Your task to perform on an android device: What's on my calendar today? Image 0: 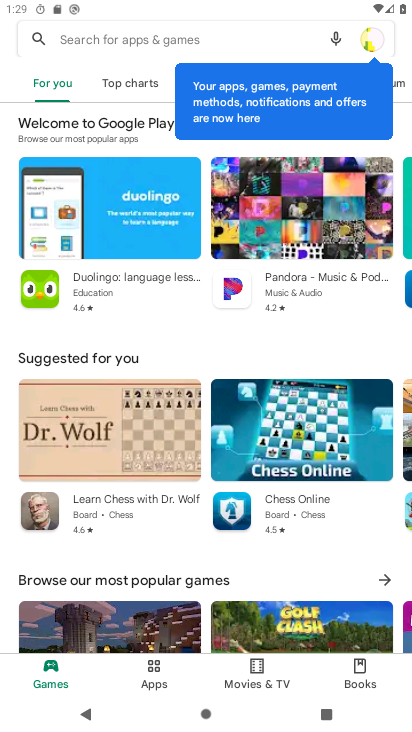
Step 0: press home button
Your task to perform on an android device: What's on my calendar today? Image 1: 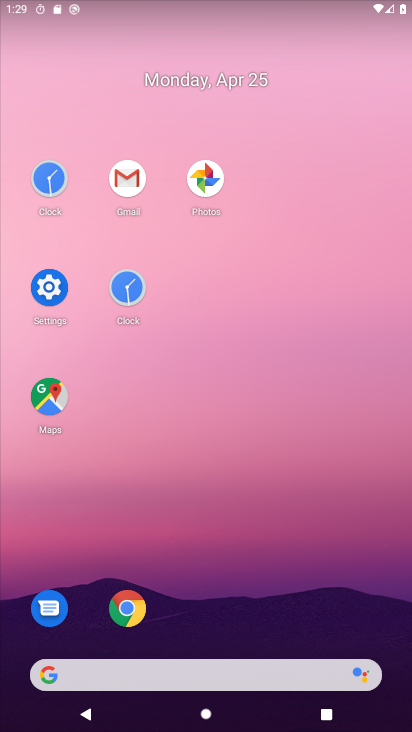
Step 1: drag from (193, 633) to (233, 181)
Your task to perform on an android device: What's on my calendar today? Image 2: 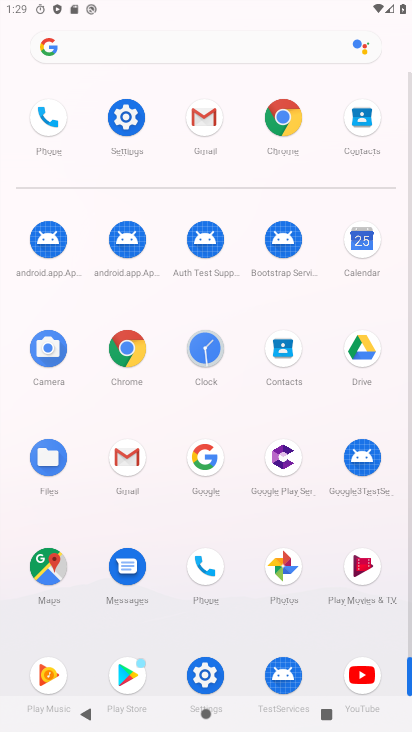
Step 2: drag from (361, 237) to (243, 244)
Your task to perform on an android device: What's on my calendar today? Image 3: 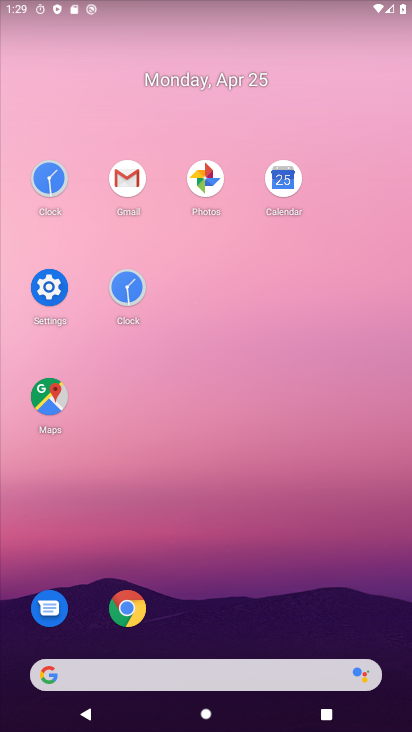
Step 3: click (283, 189)
Your task to perform on an android device: What's on my calendar today? Image 4: 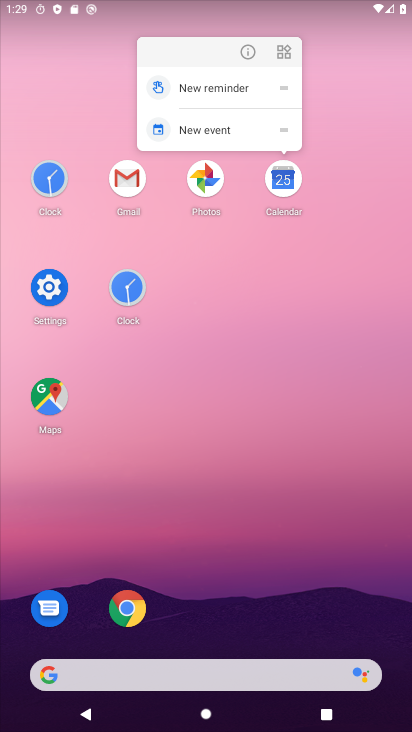
Step 4: click (283, 189)
Your task to perform on an android device: What's on my calendar today? Image 5: 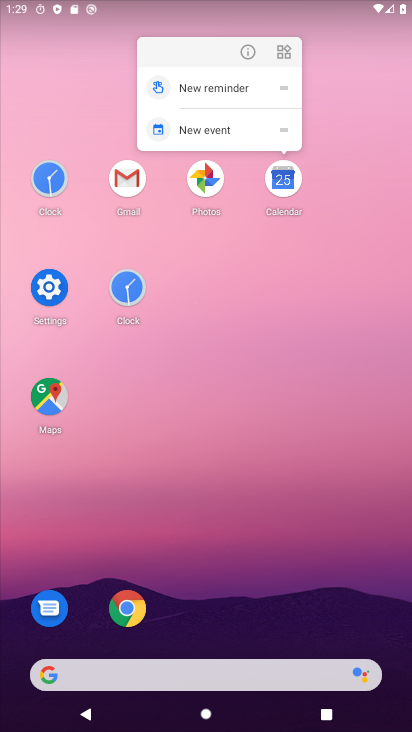
Step 5: click (283, 189)
Your task to perform on an android device: What's on my calendar today? Image 6: 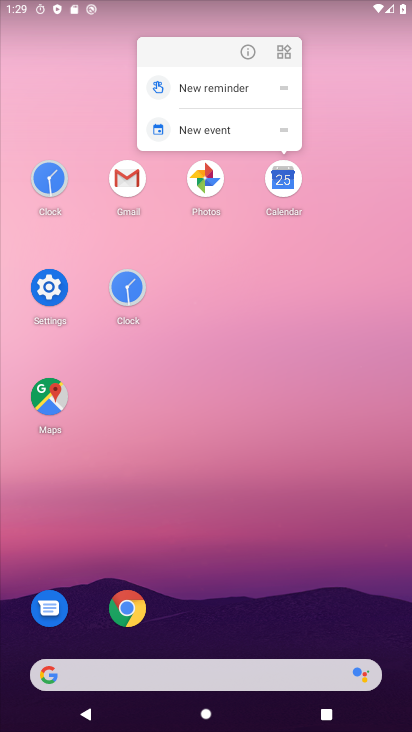
Step 6: click (284, 189)
Your task to perform on an android device: What's on my calendar today? Image 7: 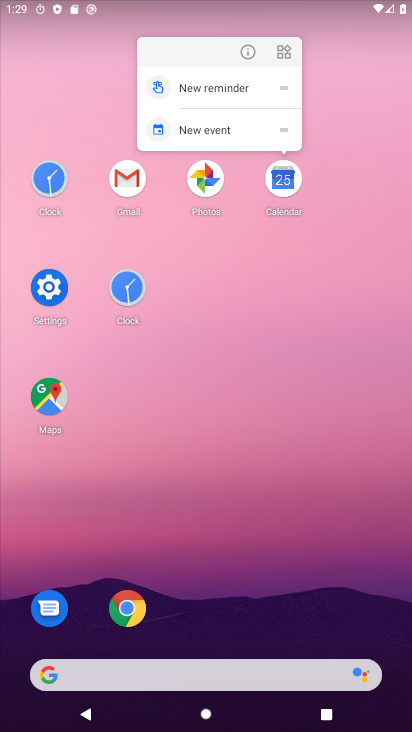
Step 7: click (285, 180)
Your task to perform on an android device: What's on my calendar today? Image 8: 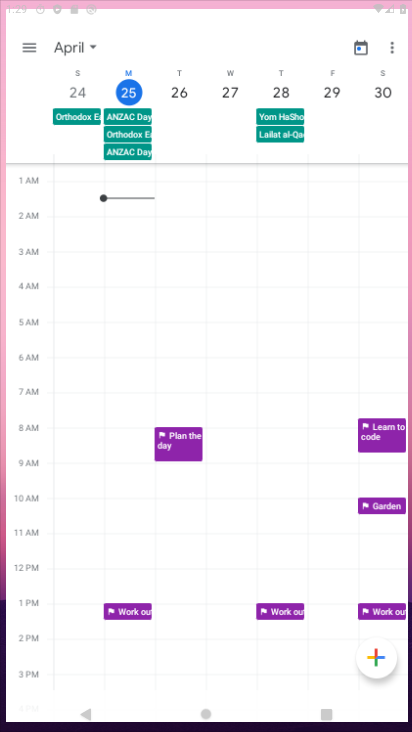
Step 8: click (283, 192)
Your task to perform on an android device: What's on my calendar today? Image 9: 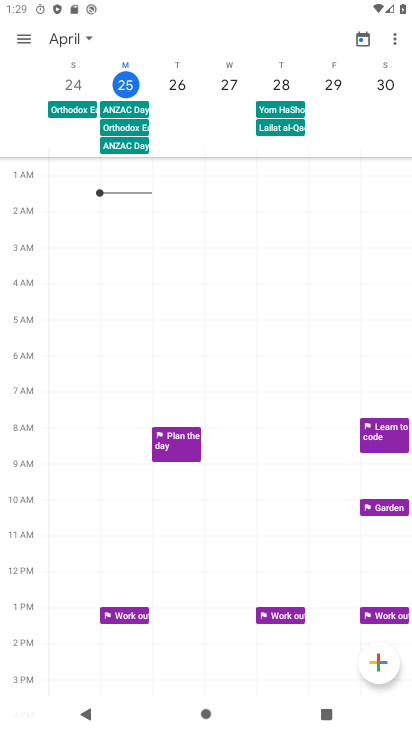
Step 9: click (117, 83)
Your task to perform on an android device: What's on my calendar today? Image 10: 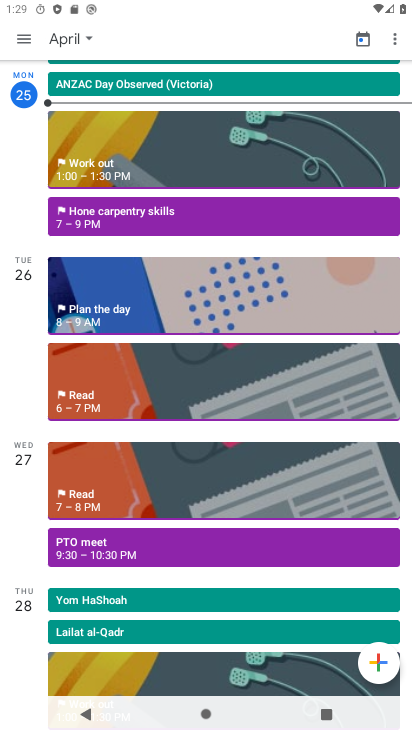
Step 10: task complete